Your task to perform on an android device: Open CNN.com Image 0: 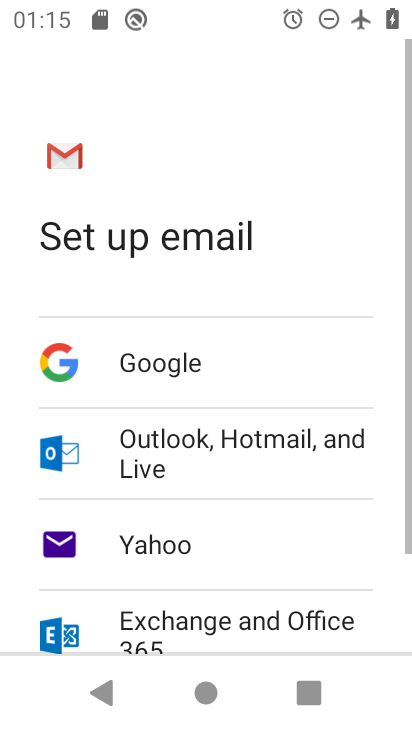
Step 0: press home button
Your task to perform on an android device: Open CNN.com Image 1: 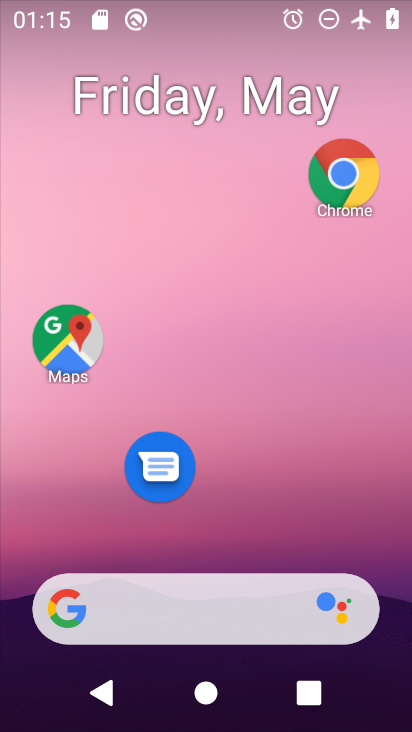
Step 1: drag from (279, 427) to (298, 184)
Your task to perform on an android device: Open CNN.com Image 2: 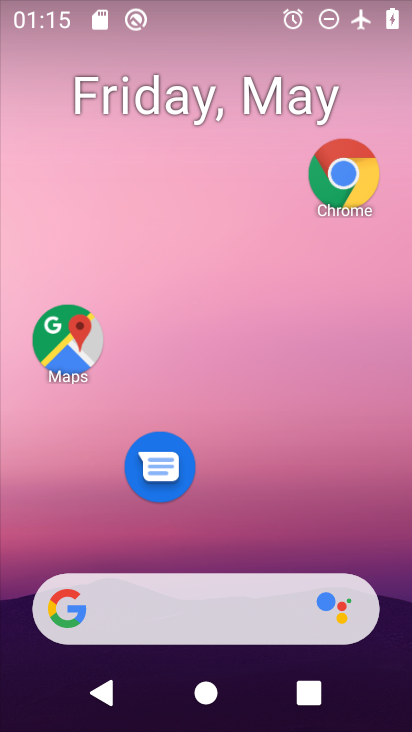
Step 2: drag from (260, 456) to (269, 214)
Your task to perform on an android device: Open CNN.com Image 3: 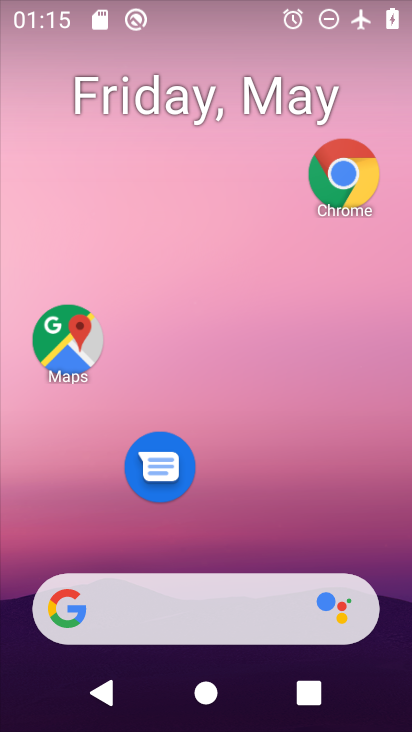
Step 3: drag from (204, 632) to (266, 251)
Your task to perform on an android device: Open CNN.com Image 4: 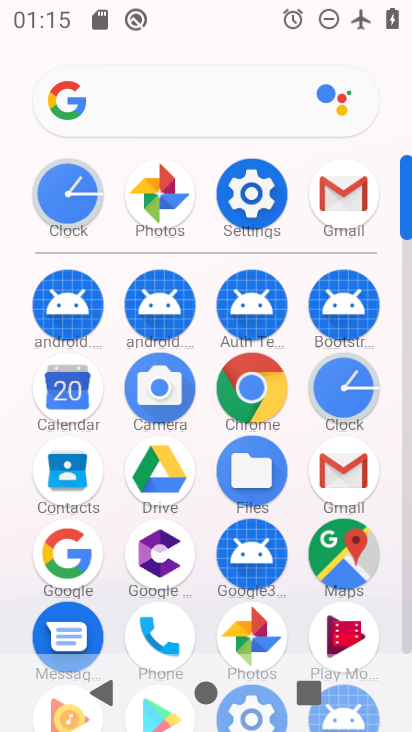
Step 4: click (257, 380)
Your task to perform on an android device: Open CNN.com Image 5: 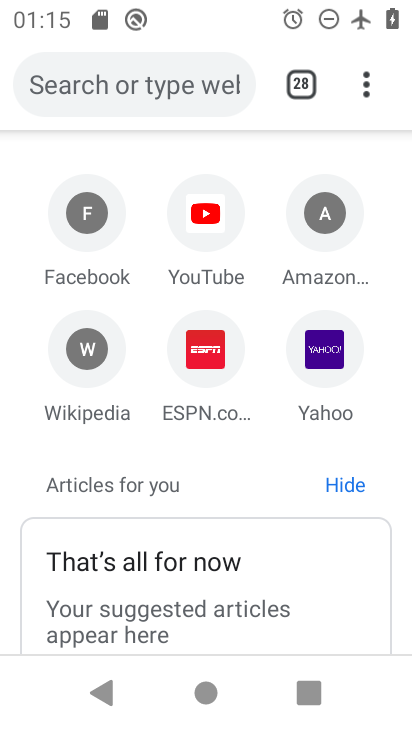
Step 5: click (121, 86)
Your task to perform on an android device: Open CNN.com Image 6: 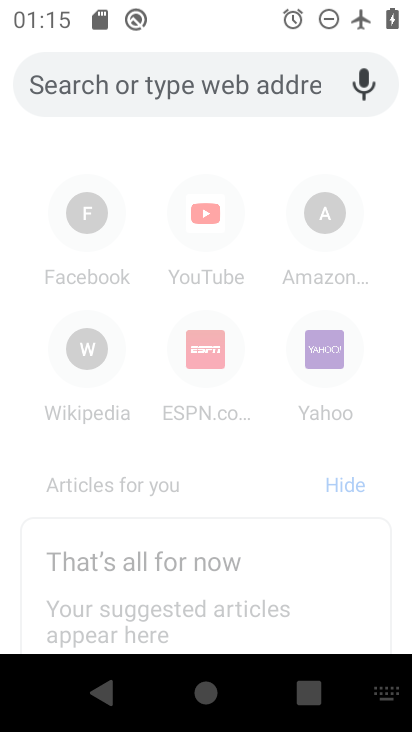
Step 6: type "CNN.com"
Your task to perform on an android device: Open CNN.com Image 7: 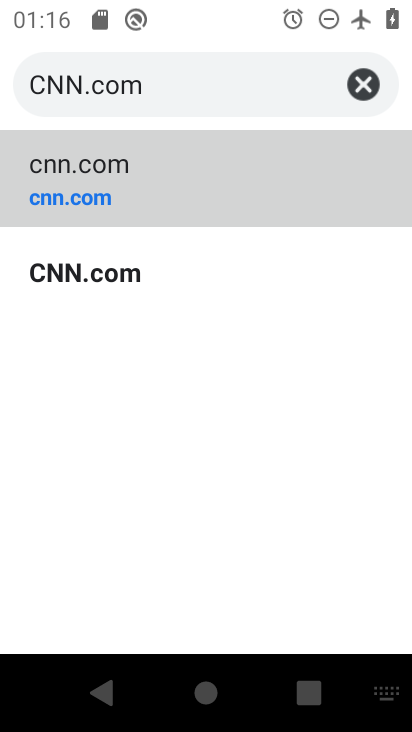
Step 7: click (179, 176)
Your task to perform on an android device: Open CNN.com Image 8: 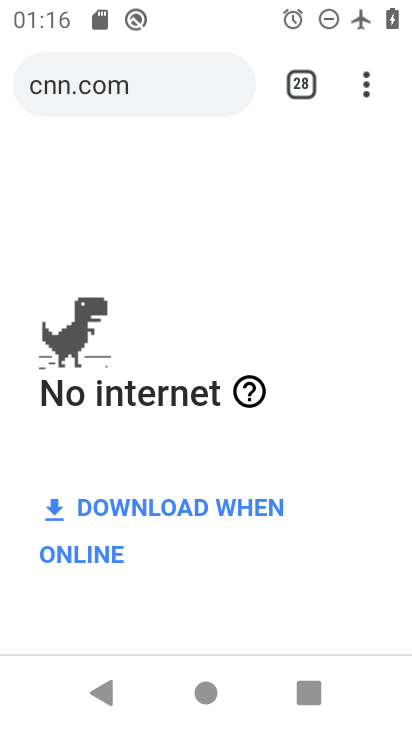
Step 8: task complete